Your task to perform on an android device: change keyboard looks Image 0: 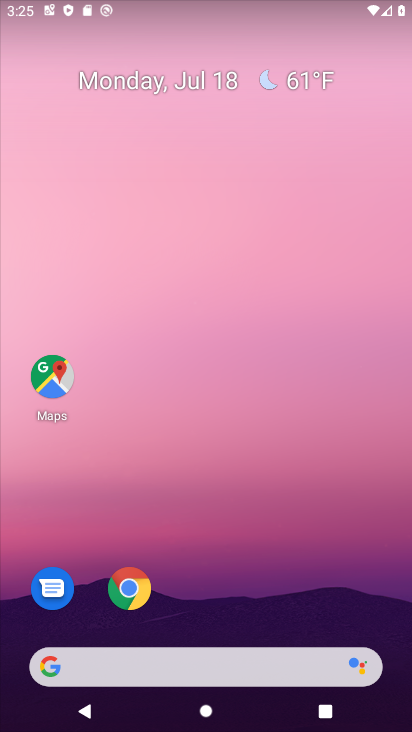
Step 0: drag from (287, 577) to (370, 31)
Your task to perform on an android device: change keyboard looks Image 1: 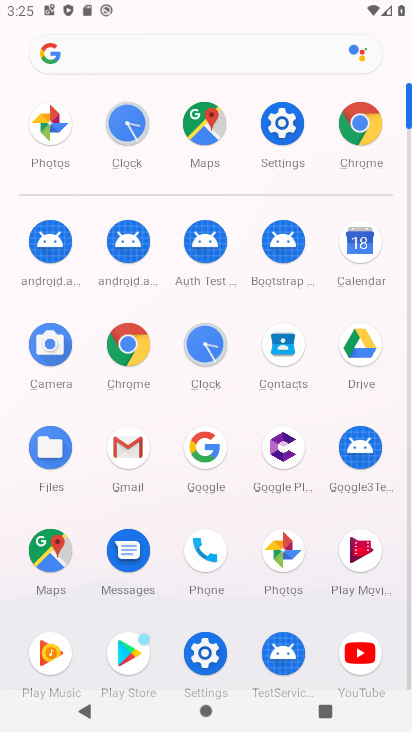
Step 1: click (270, 135)
Your task to perform on an android device: change keyboard looks Image 2: 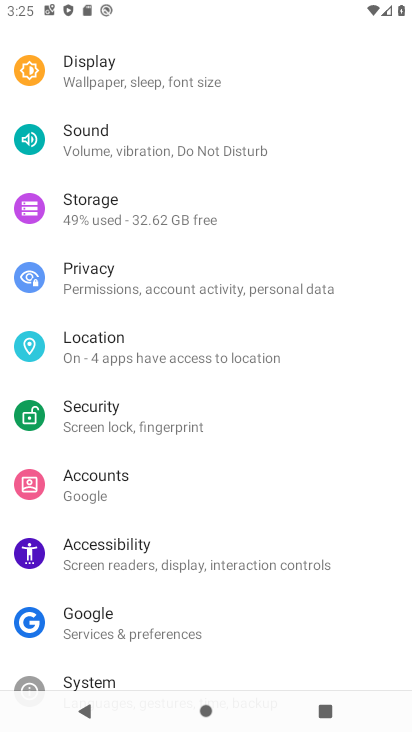
Step 2: drag from (273, 608) to (217, 218)
Your task to perform on an android device: change keyboard looks Image 3: 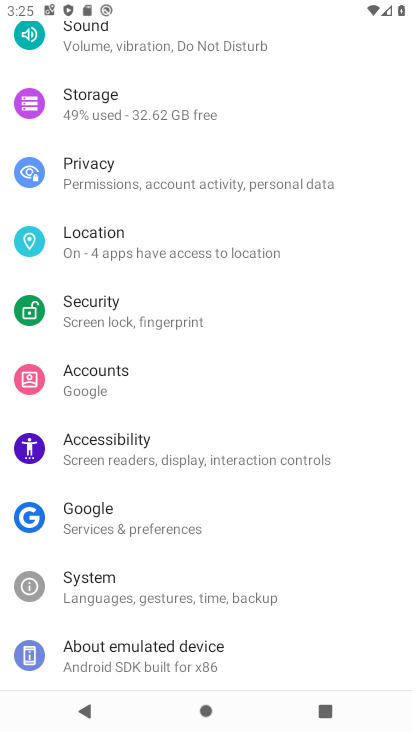
Step 3: click (239, 656)
Your task to perform on an android device: change keyboard looks Image 4: 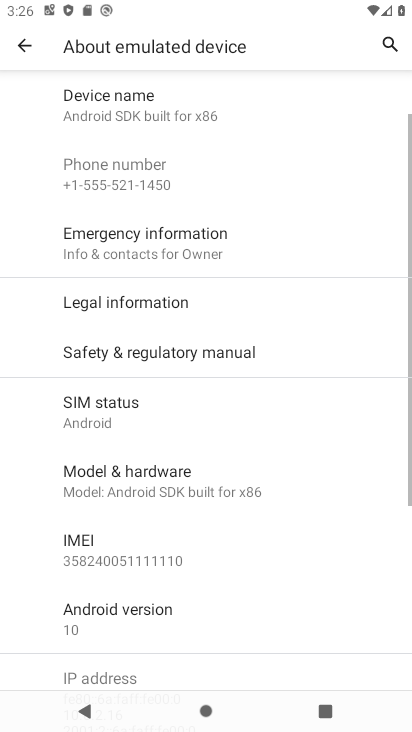
Step 4: task complete